Your task to perform on an android device: set the timer Image 0: 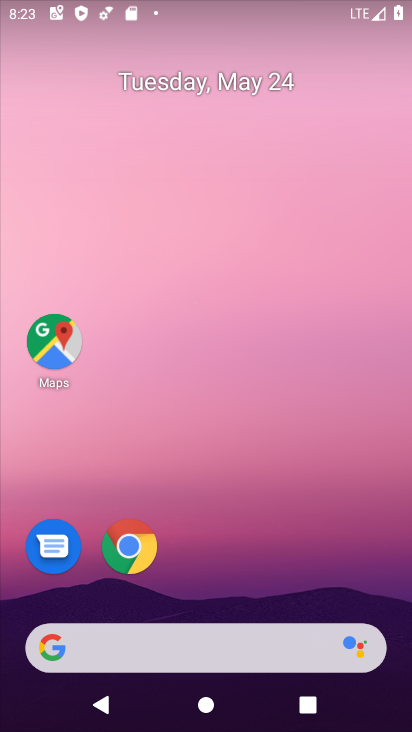
Step 0: drag from (236, 549) to (286, 0)
Your task to perform on an android device: set the timer Image 1: 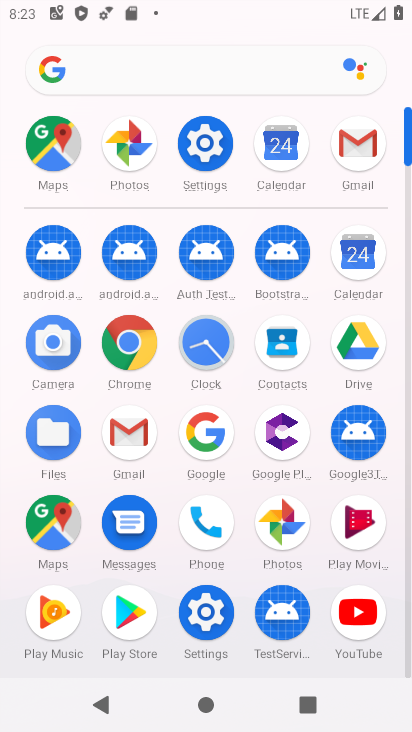
Step 1: click (211, 356)
Your task to perform on an android device: set the timer Image 2: 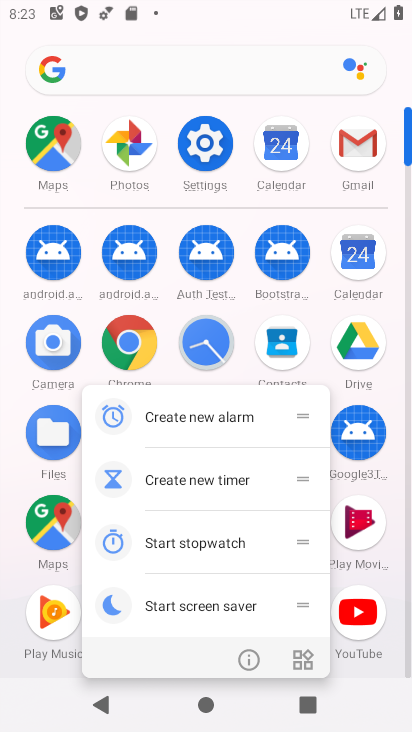
Step 2: click (211, 349)
Your task to perform on an android device: set the timer Image 3: 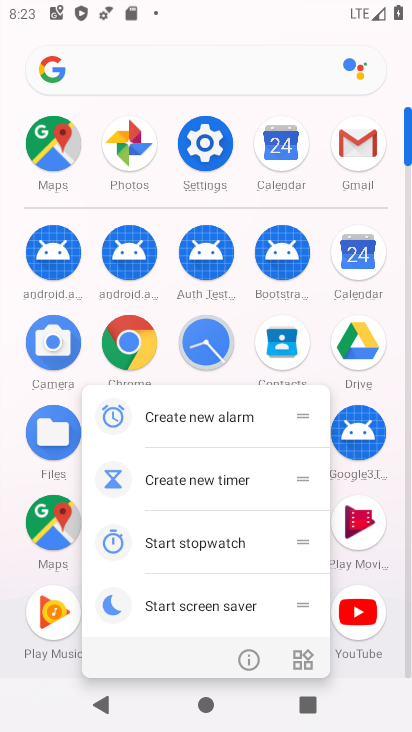
Step 3: click (212, 332)
Your task to perform on an android device: set the timer Image 4: 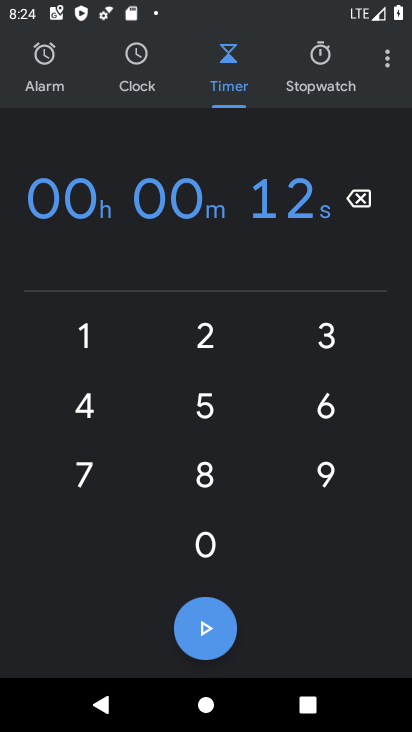
Step 4: click (353, 195)
Your task to perform on an android device: set the timer Image 5: 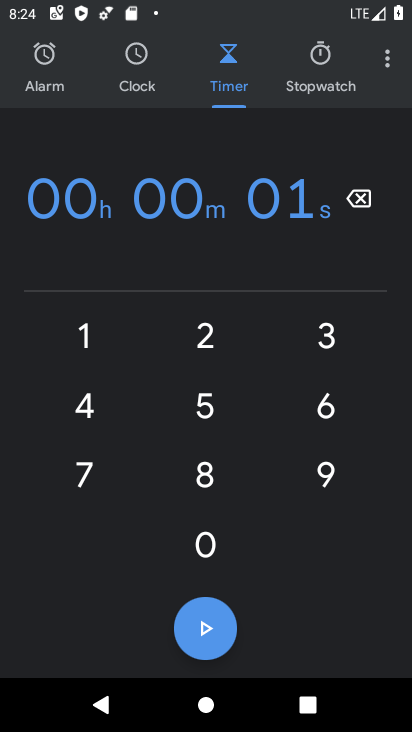
Step 5: task complete